Your task to perform on an android device: Open notification settings Image 0: 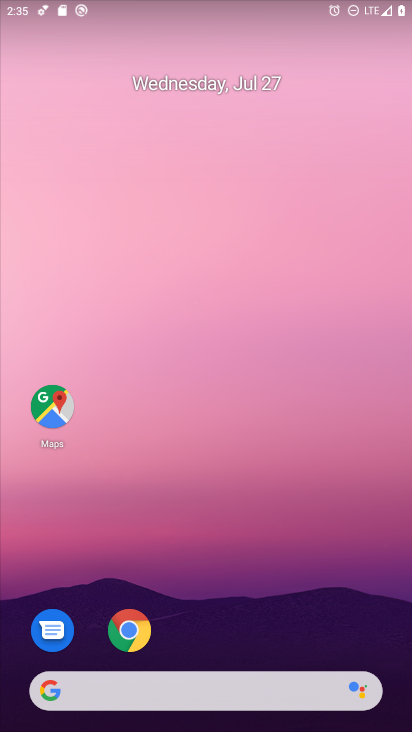
Step 0: drag from (372, 644) to (354, 134)
Your task to perform on an android device: Open notification settings Image 1: 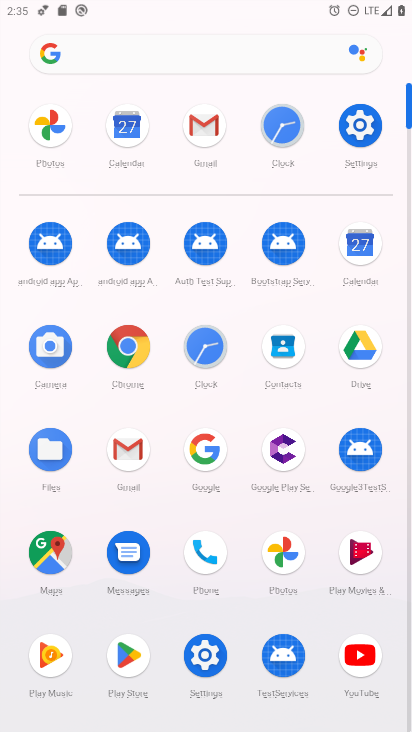
Step 1: click (205, 657)
Your task to perform on an android device: Open notification settings Image 2: 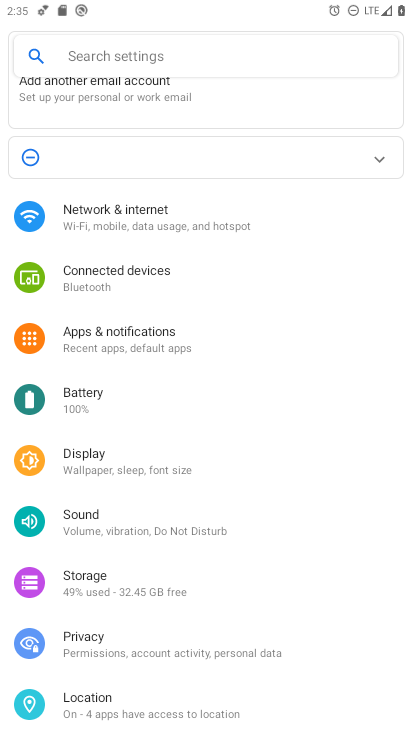
Step 2: click (102, 332)
Your task to perform on an android device: Open notification settings Image 3: 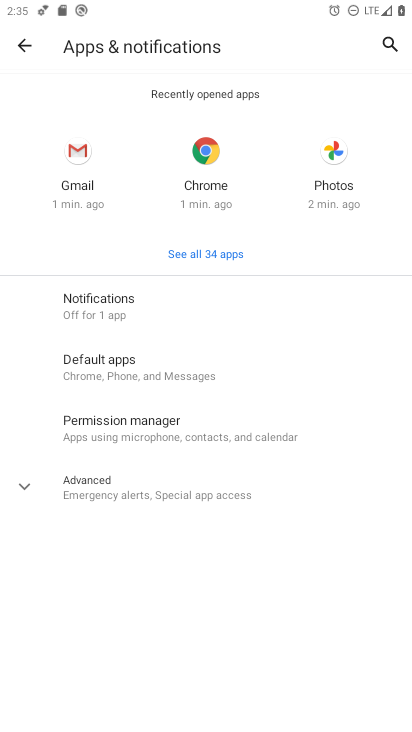
Step 3: click (86, 304)
Your task to perform on an android device: Open notification settings Image 4: 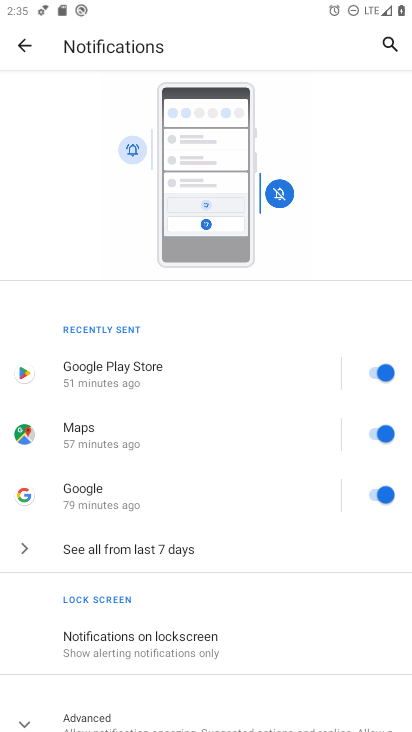
Step 4: drag from (272, 632) to (268, 266)
Your task to perform on an android device: Open notification settings Image 5: 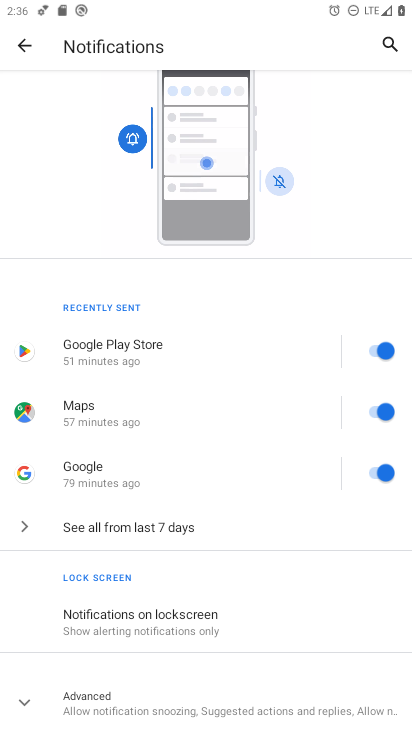
Step 5: click (20, 699)
Your task to perform on an android device: Open notification settings Image 6: 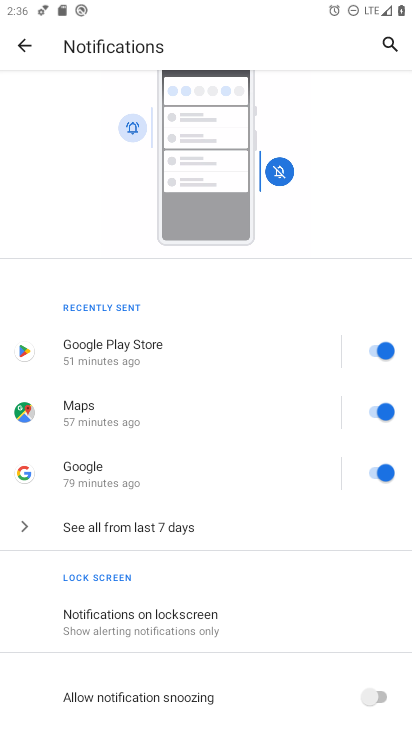
Step 6: task complete